Your task to perform on an android device: toggle javascript in the chrome app Image 0: 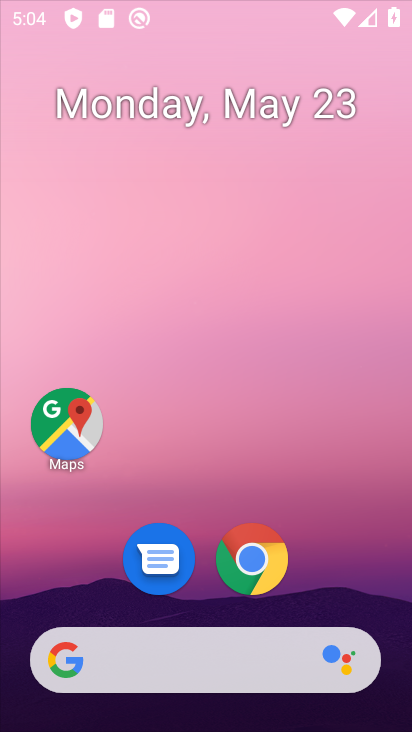
Step 0: drag from (280, 660) to (295, 17)
Your task to perform on an android device: toggle javascript in the chrome app Image 1: 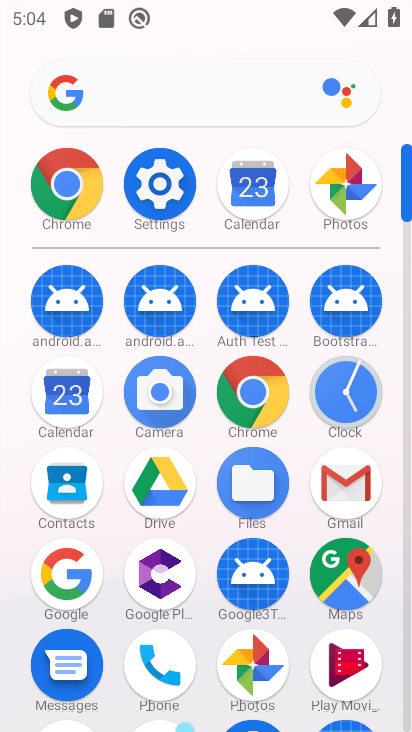
Step 1: click (250, 401)
Your task to perform on an android device: toggle javascript in the chrome app Image 2: 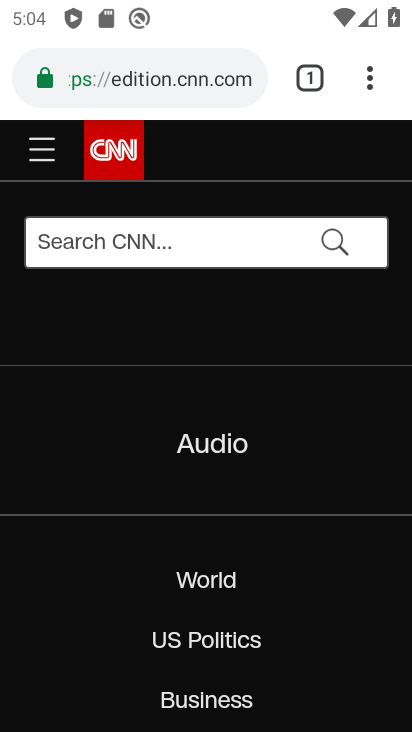
Step 2: drag from (362, 87) to (189, 629)
Your task to perform on an android device: toggle javascript in the chrome app Image 3: 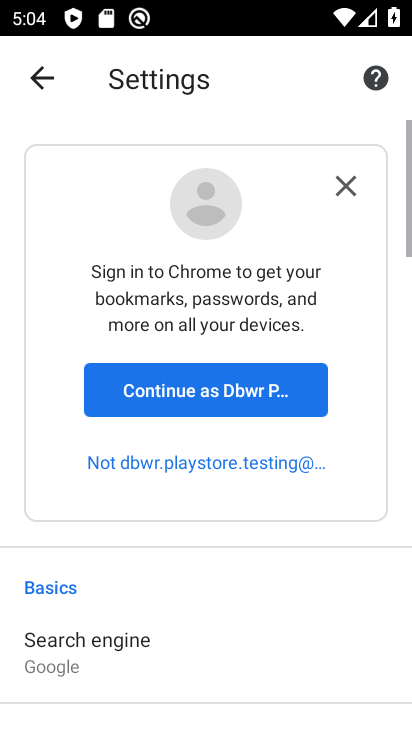
Step 3: drag from (312, 658) to (395, 31)
Your task to perform on an android device: toggle javascript in the chrome app Image 4: 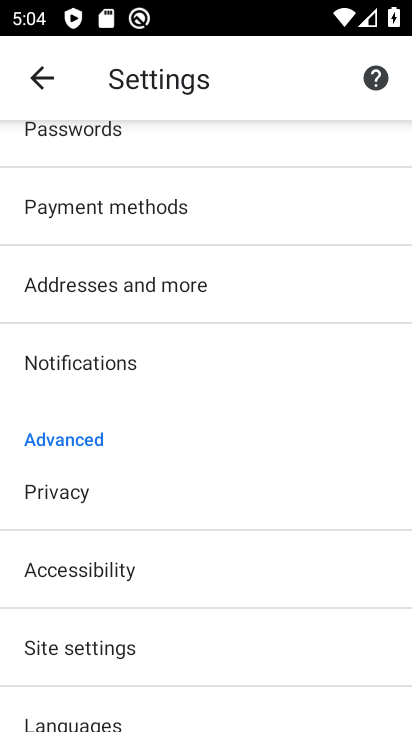
Step 4: drag from (259, 625) to (378, 71)
Your task to perform on an android device: toggle javascript in the chrome app Image 5: 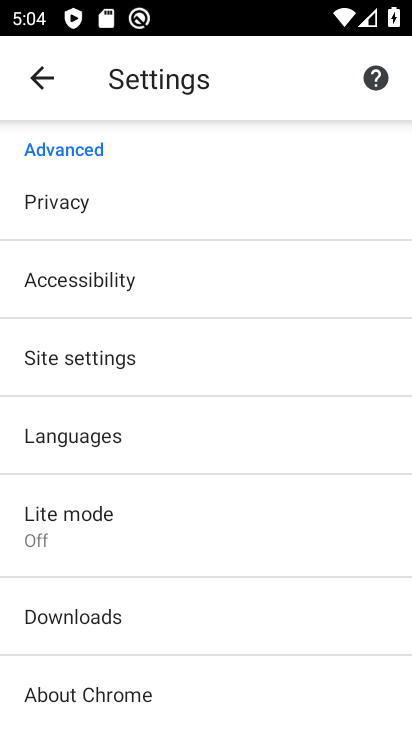
Step 5: click (220, 359)
Your task to perform on an android device: toggle javascript in the chrome app Image 6: 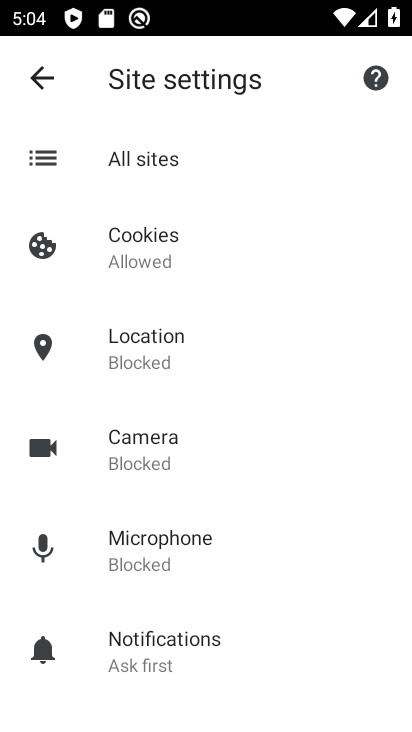
Step 6: drag from (229, 650) to (243, 103)
Your task to perform on an android device: toggle javascript in the chrome app Image 7: 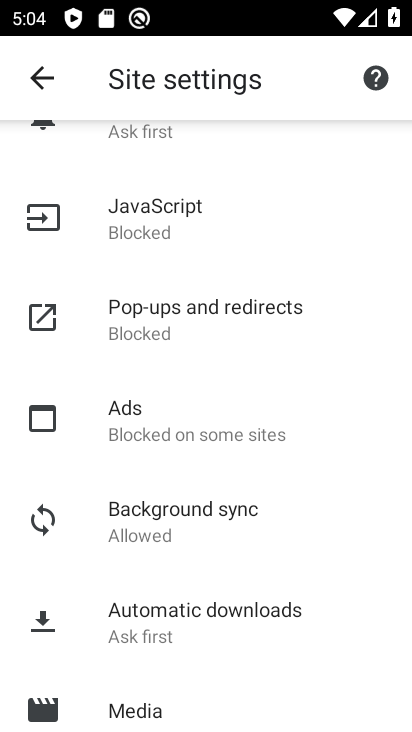
Step 7: click (181, 224)
Your task to perform on an android device: toggle javascript in the chrome app Image 8: 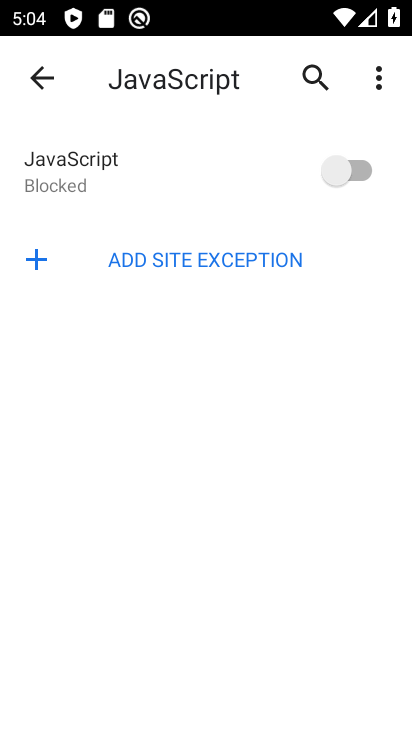
Step 8: click (352, 170)
Your task to perform on an android device: toggle javascript in the chrome app Image 9: 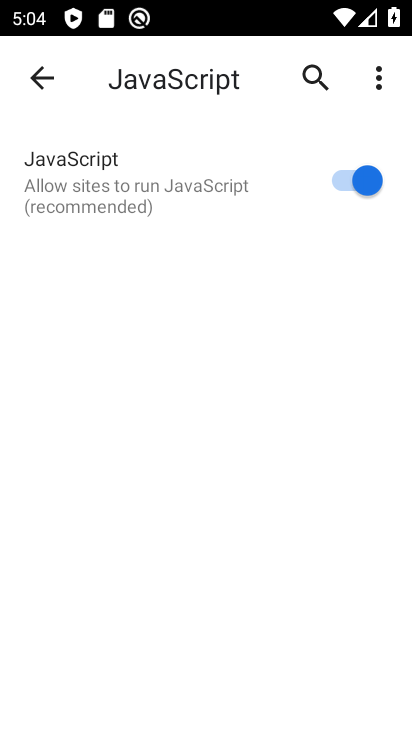
Step 9: task complete